Your task to perform on an android device: turn off location Image 0: 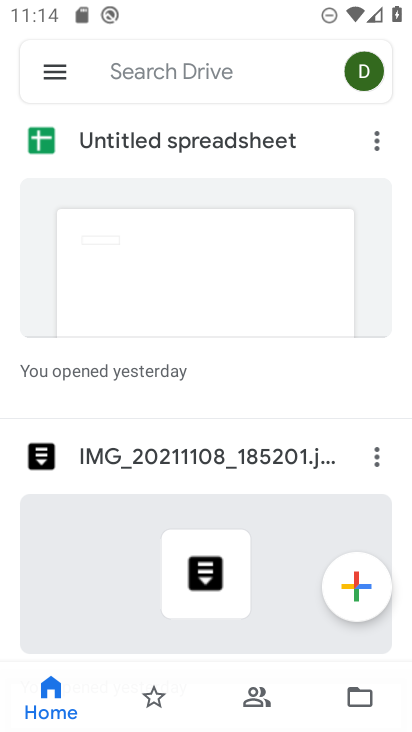
Step 0: press home button
Your task to perform on an android device: turn off location Image 1: 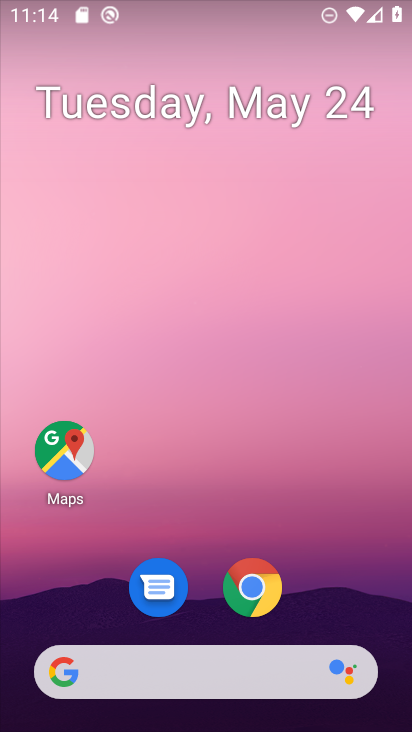
Step 1: drag from (345, 593) to (310, 163)
Your task to perform on an android device: turn off location Image 2: 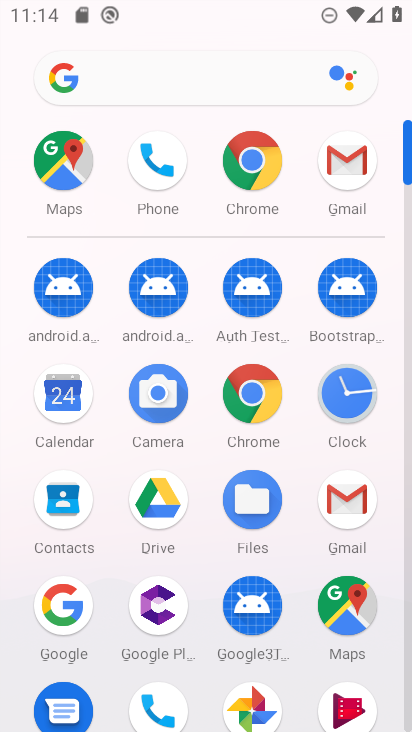
Step 2: click (404, 723)
Your task to perform on an android device: turn off location Image 3: 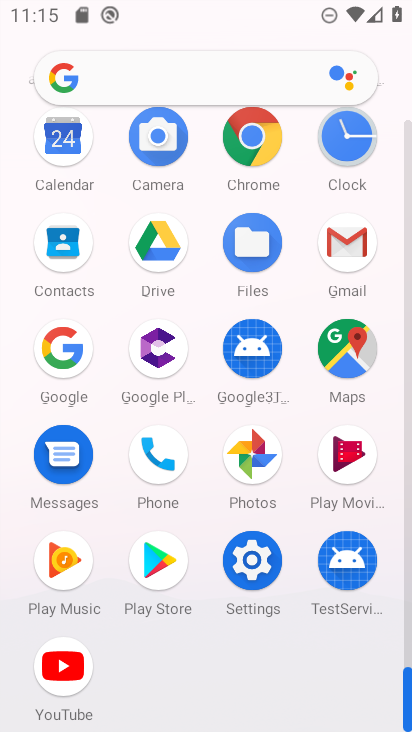
Step 3: click (256, 546)
Your task to perform on an android device: turn off location Image 4: 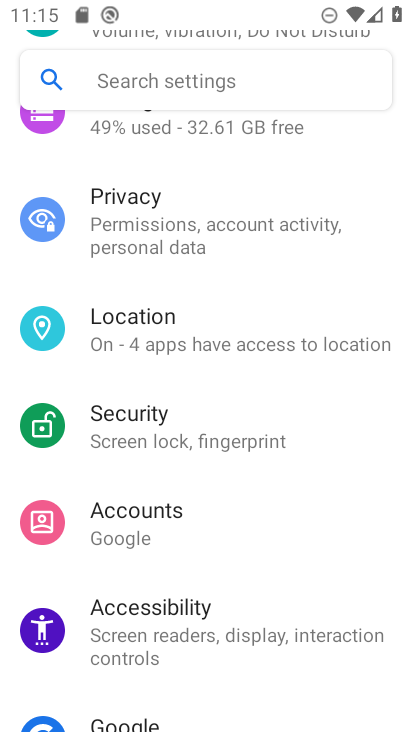
Step 4: click (231, 330)
Your task to perform on an android device: turn off location Image 5: 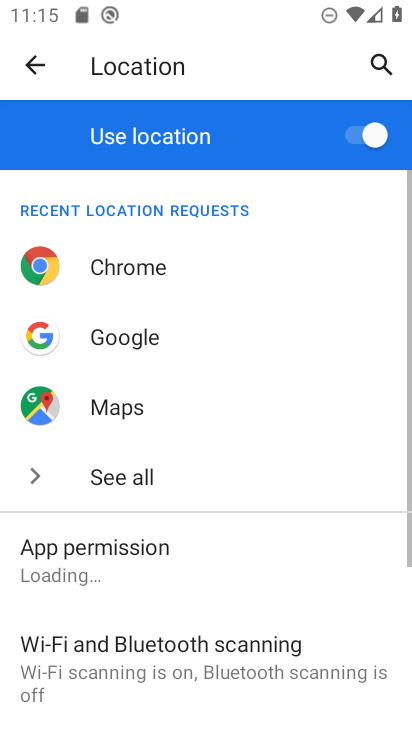
Step 5: click (344, 127)
Your task to perform on an android device: turn off location Image 6: 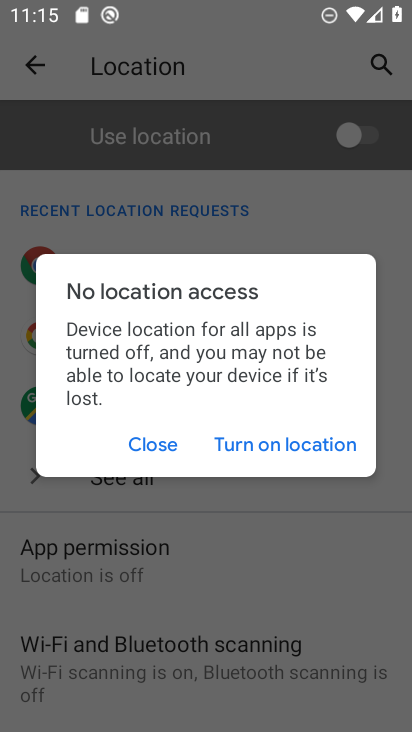
Step 6: click (155, 448)
Your task to perform on an android device: turn off location Image 7: 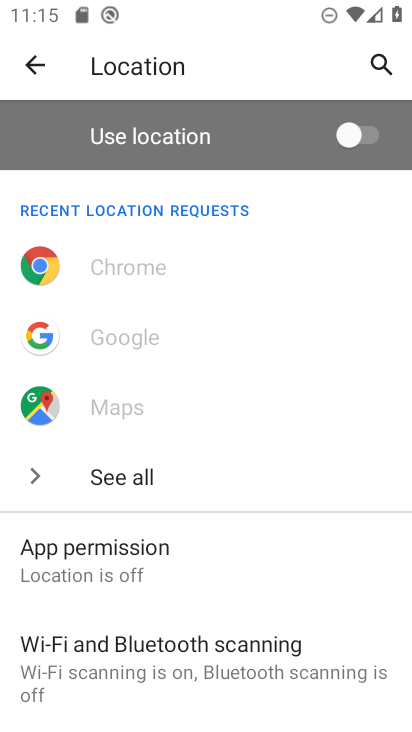
Step 7: task complete